Your task to perform on an android device: Open Chrome and go to settings Image 0: 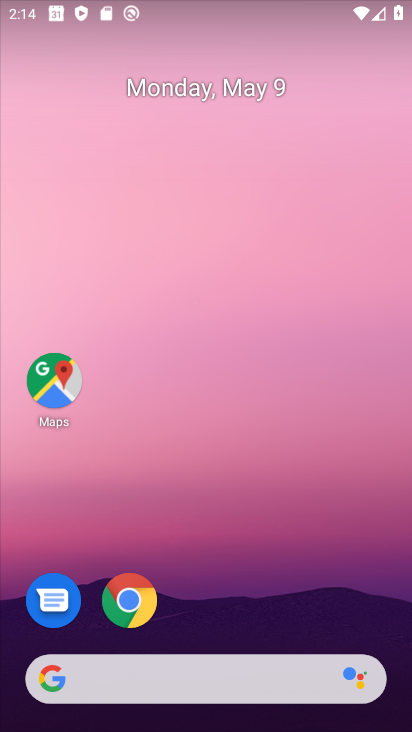
Step 0: drag from (252, 570) to (255, 3)
Your task to perform on an android device: Open Chrome and go to settings Image 1: 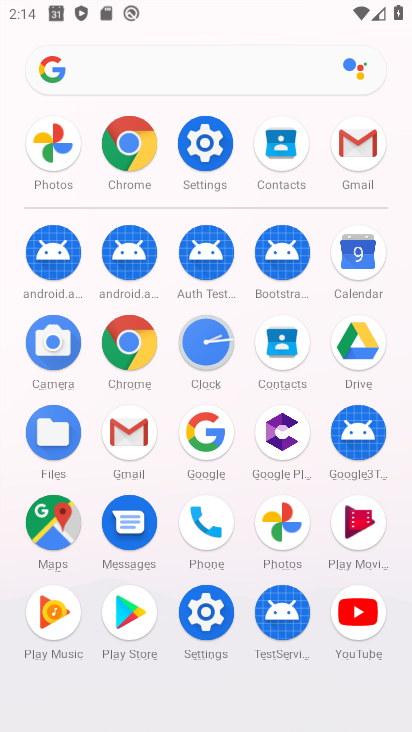
Step 1: click (128, 340)
Your task to perform on an android device: Open Chrome and go to settings Image 2: 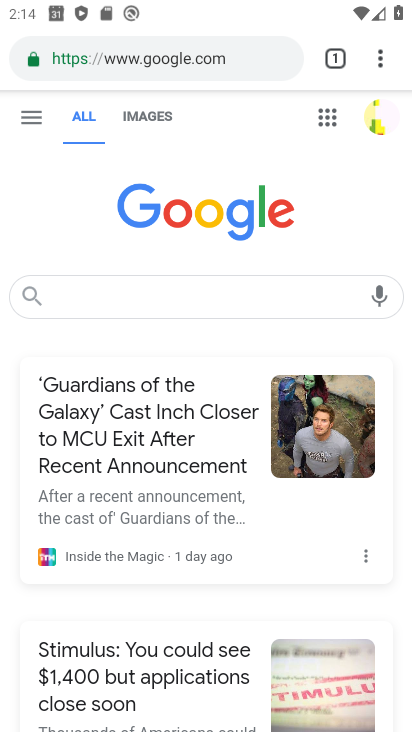
Step 2: task complete